Your task to perform on an android device: open app "Microsoft Outlook" Image 0: 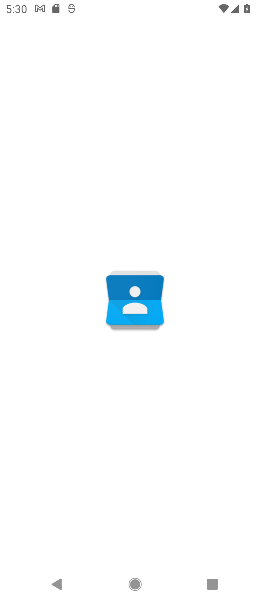
Step 0: press home button
Your task to perform on an android device: open app "Microsoft Outlook" Image 1: 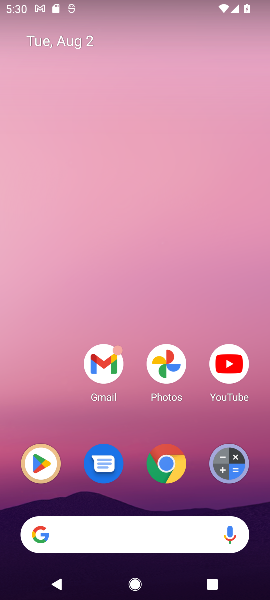
Step 1: click (41, 464)
Your task to perform on an android device: open app "Microsoft Outlook" Image 2: 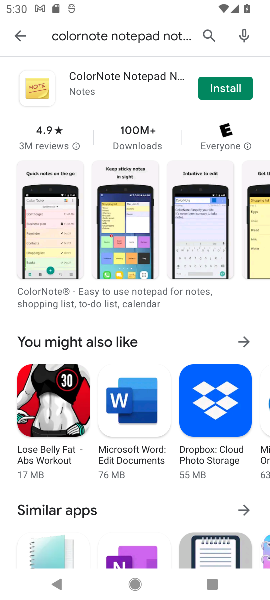
Step 2: click (203, 33)
Your task to perform on an android device: open app "Microsoft Outlook" Image 3: 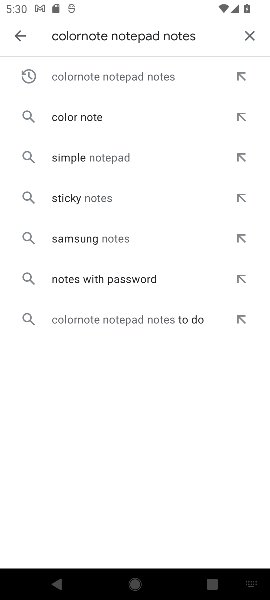
Step 3: click (251, 33)
Your task to perform on an android device: open app "Microsoft Outlook" Image 4: 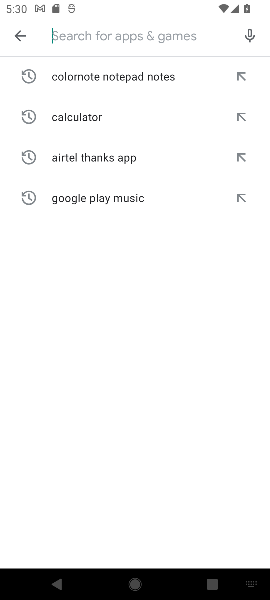
Step 4: type "Microsoft Outlook"
Your task to perform on an android device: open app "Microsoft Outlook" Image 5: 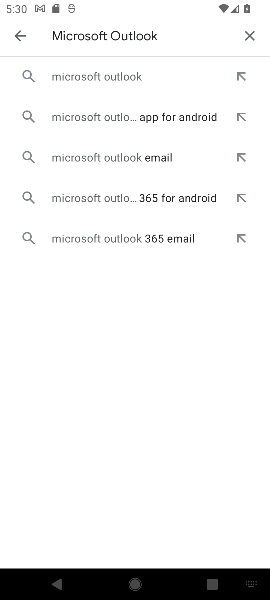
Step 5: click (122, 78)
Your task to perform on an android device: open app "Microsoft Outlook" Image 6: 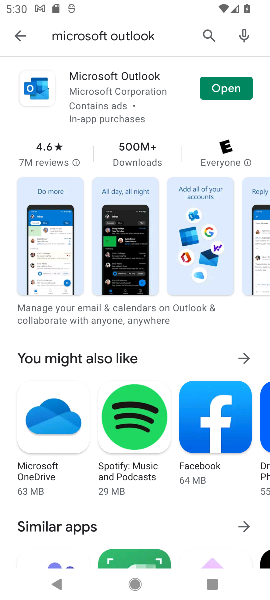
Step 6: click (232, 87)
Your task to perform on an android device: open app "Microsoft Outlook" Image 7: 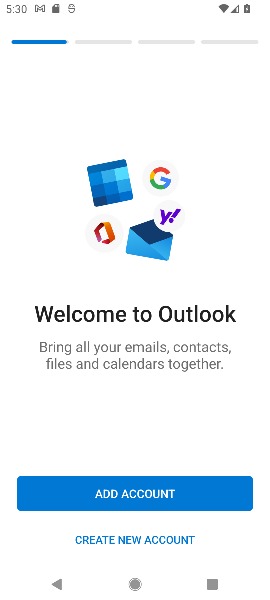
Step 7: task complete